Your task to perform on an android device: star an email in the gmail app Image 0: 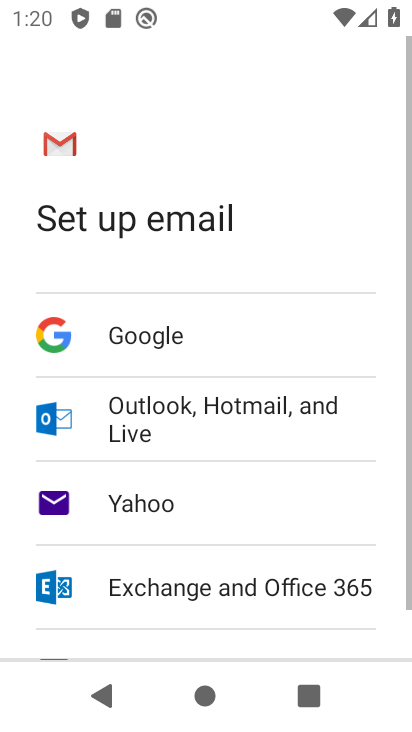
Step 0: press home button
Your task to perform on an android device: star an email in the gmail app Image 1: 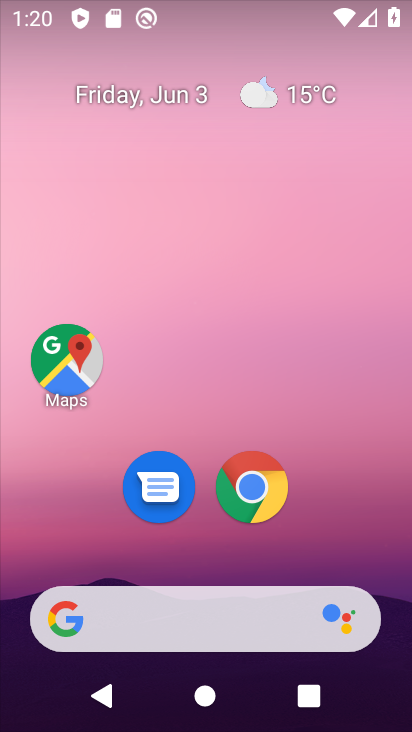
Step 1: drag from (352, 517) to (199, 19)
Your task to perform on an android device: star an email in the gmail app Image 2: 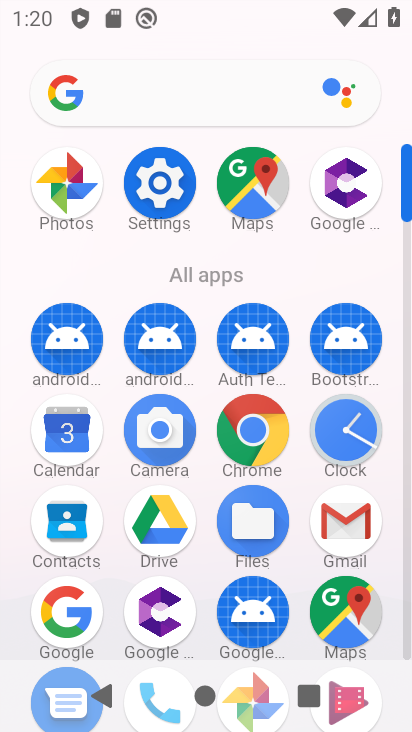
Step 2: click (337, 527)
Your task to perform on an android device: star an email in the gmail app Image 3: 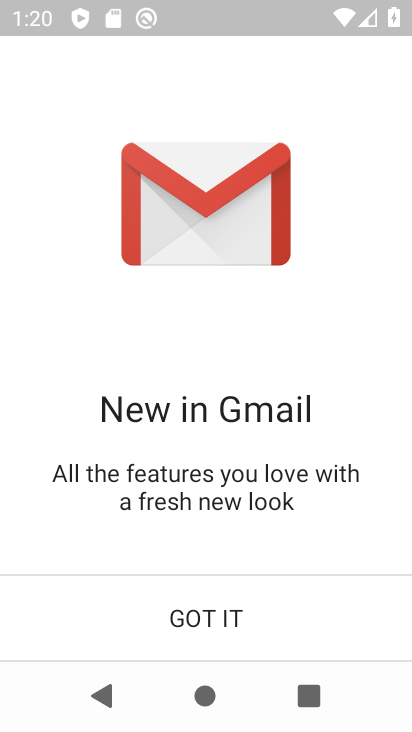
Step 3: click (226, 613)
Your task to perform on an android device: star an email in the gmail app Image 4: 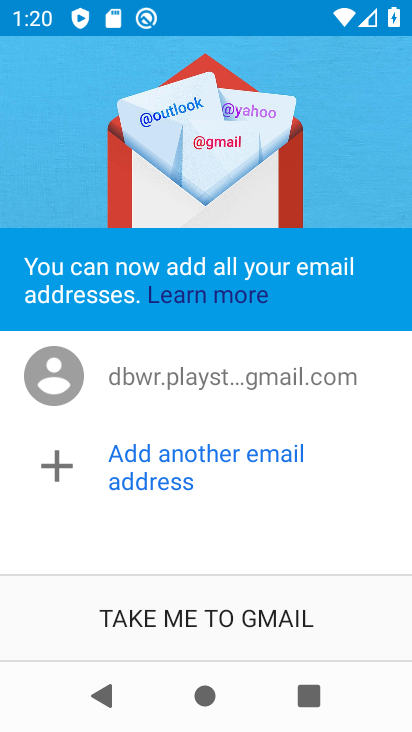
Step 4: click (205, 614)
Your task to perform on an android device: star an email in the gmail app Image 5: 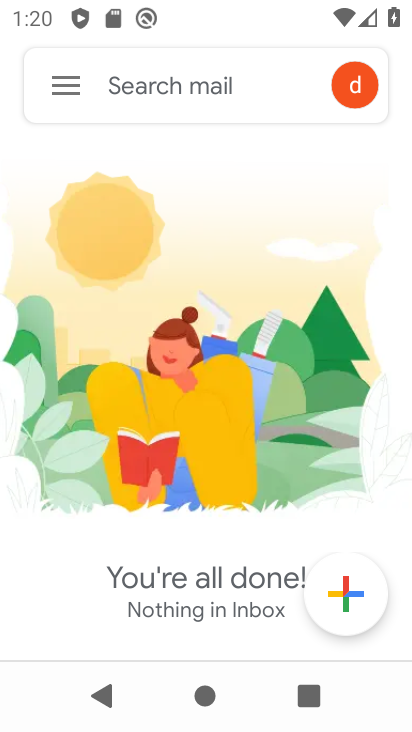
Step 5: click (70, 94)
Your task to perform on an android device: star an email in the gmail app Image 6: 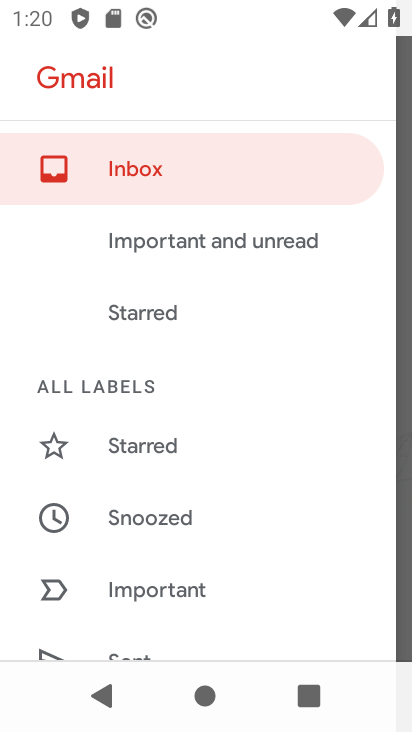
Step 6: click (177, 186)
Your task to perform on an android device: star an email in the gmail app Image 7: 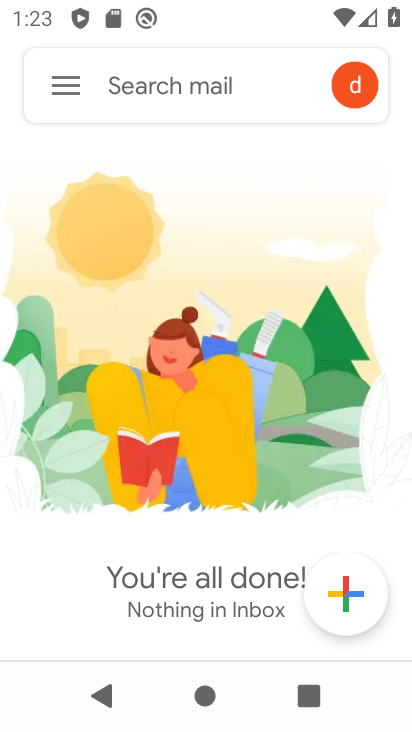
Step 7: task complete